Your task to perform on an android device: Open notification settings Image 0: 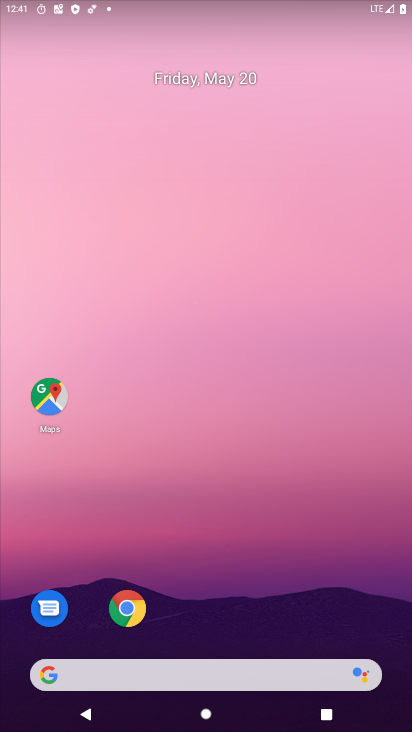
Step 0: drag from (321, 632) to (334, 144)
Your task to perform on an android device: Open notification settings Image 1: 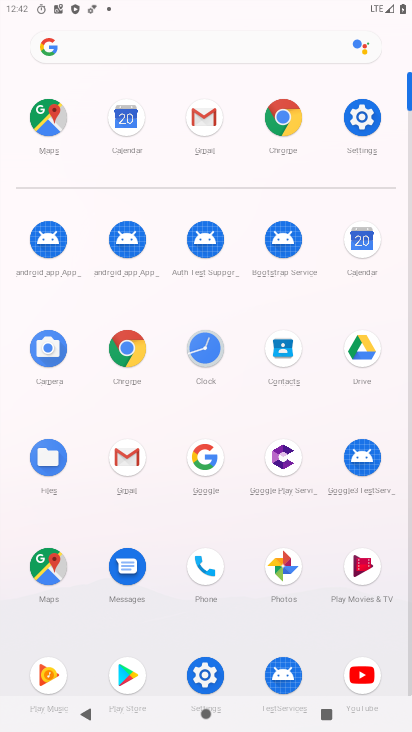
Step 1: click (364, 124)
Your task to perform on an android device: Open notification settings Image 2: 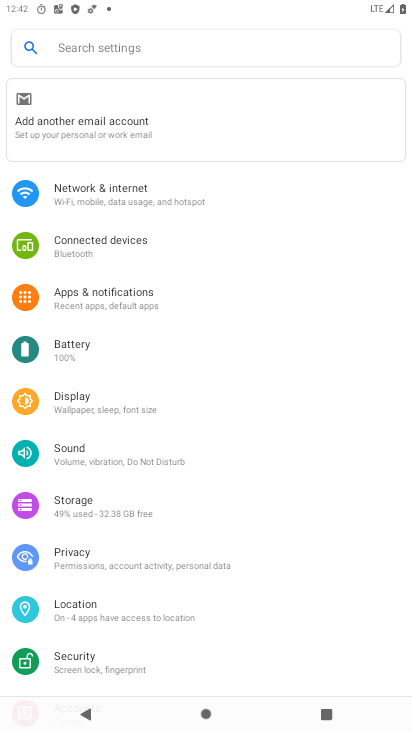
Step 2: click (160, 288)
Your task to perform on an android device: Open notification settings Image 3: 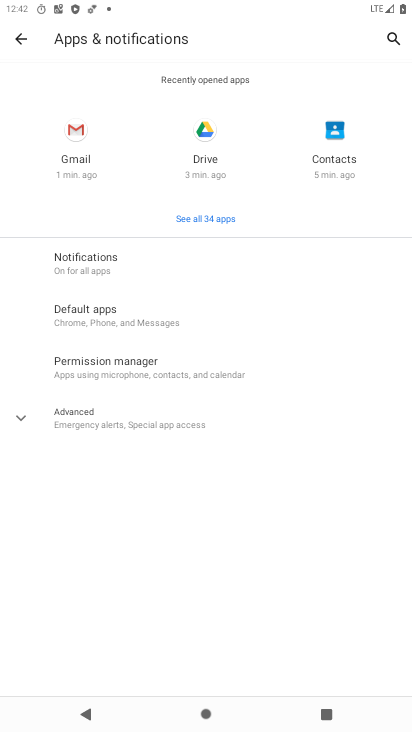
Step 3: click (145, 269)
Your task to perform on an android device: Open notification settings Image 4: 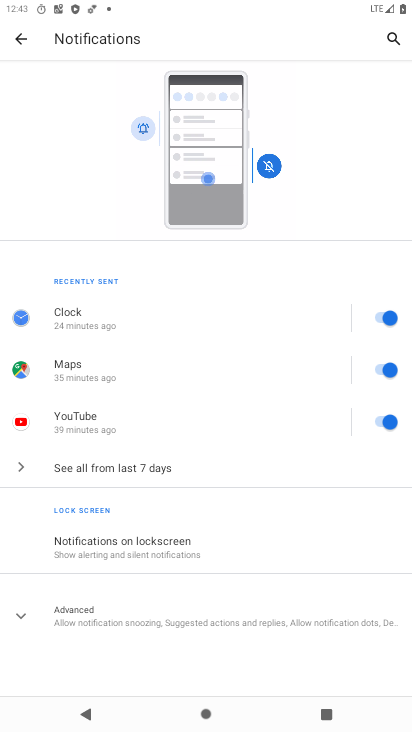
Step 4: click (22, 613)
Your task to perform on an android device: Open notification settings Image 5: 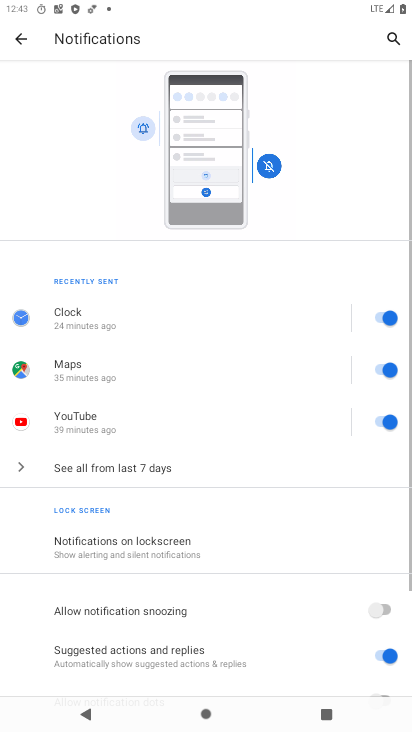
Step 5: task complete